Your task to perform on an android device: Open the phone app and click the voicemail tab. Image 0: 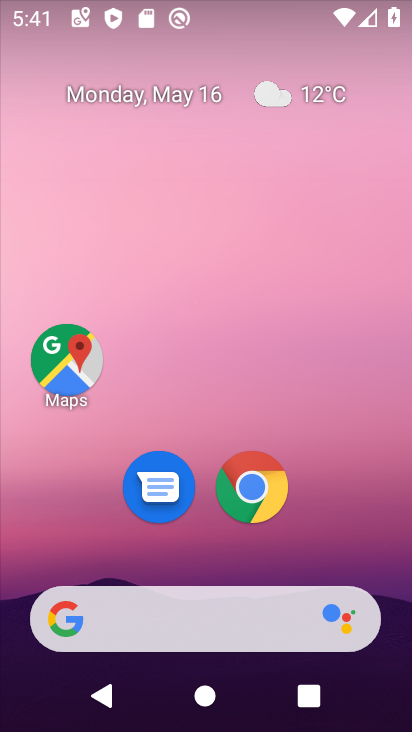
Step 0: drag from (357, 536) to (360, 133)
Your task to perform on an android device: Open the phone app and click the voicemail tab. Image 1: 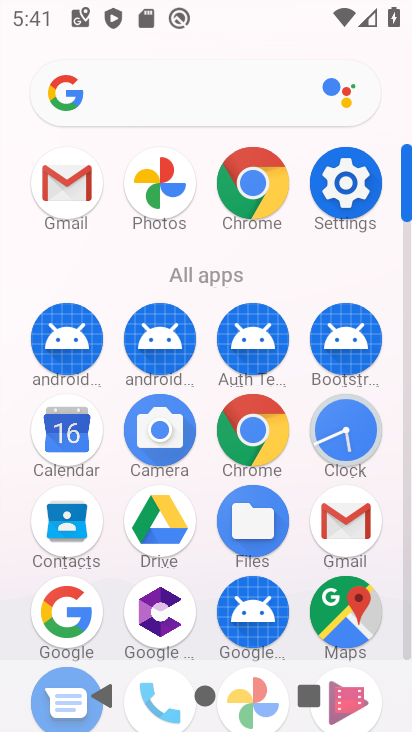
Step 1: drag from (297, 600) to (312, 322)
Your task to perform on an android device: Open the phone app and click the voicemail tab. Image 2: 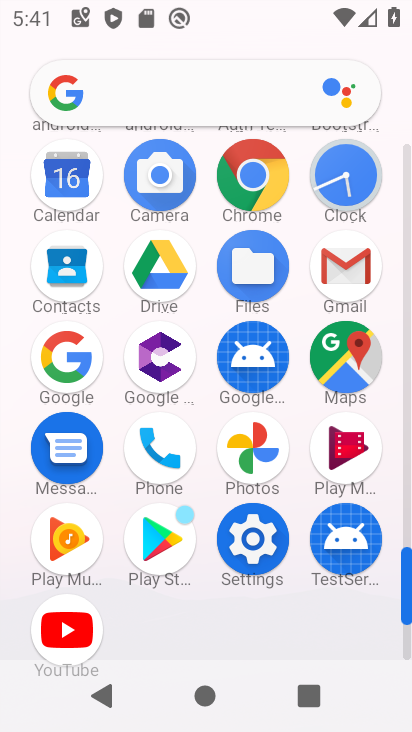
Step 2: click (161, 429)
Your task to perform on an android device: Open the phone app and click the voicemail tab. Image 3: 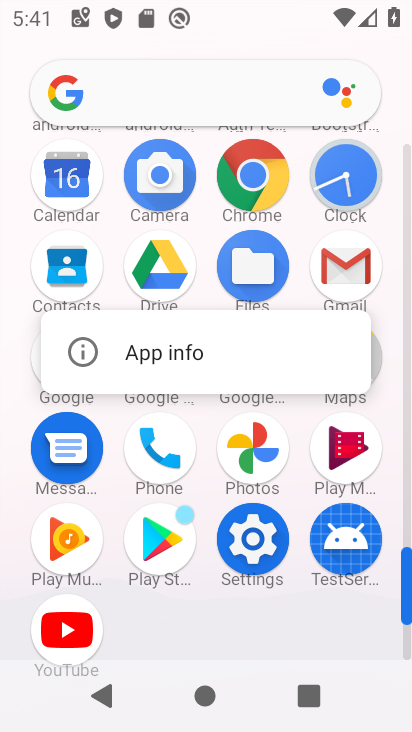
Step 3: click (148, 469)
Your task to perform on an android device: Open the phone app and click the voicemail tab. Image 4: 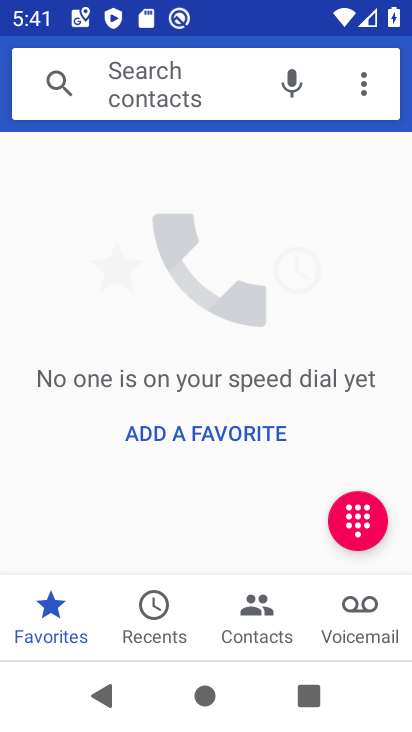
Step 4: click (356, 609)
Your task to perform on an android device: Open the phone app and click the voicemail tab. Image 5: 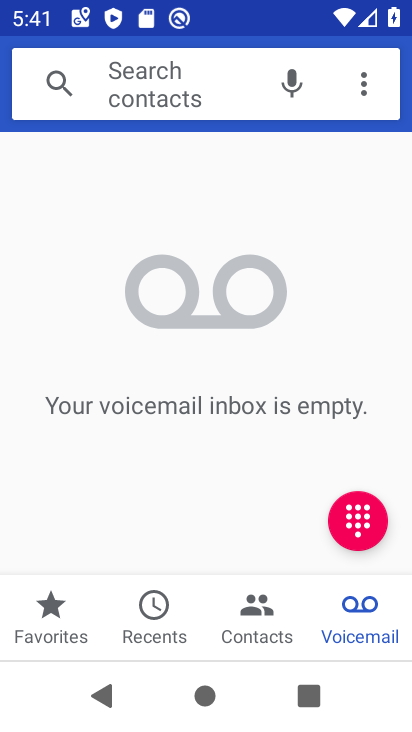
Step 5: task complete